Your task to perform on an android device: Turn off the flashlight Image 0: 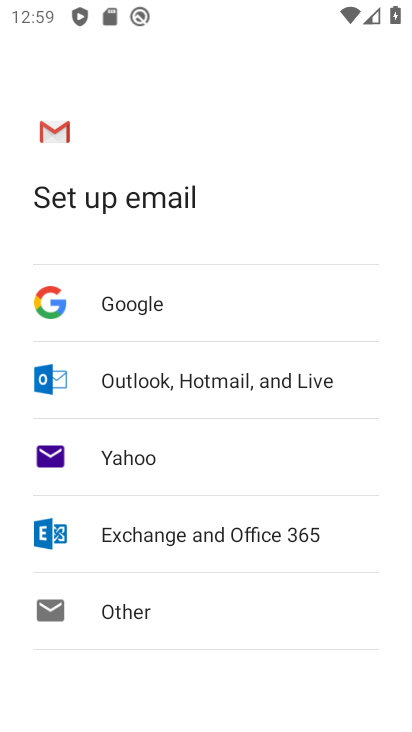
Step 0: press home button
Your task to perform on an android device: Turn off the flashlight Image 1: 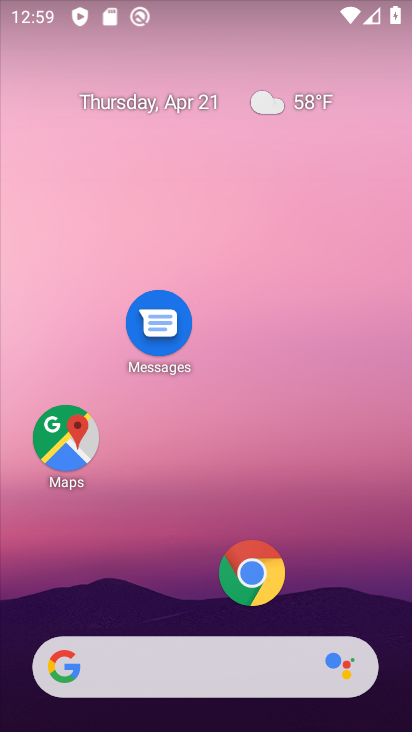
Step 1: drag from (161, 541) to (193, 66)
Your task to perform on an android device: Turn off the flashlight Image 2: 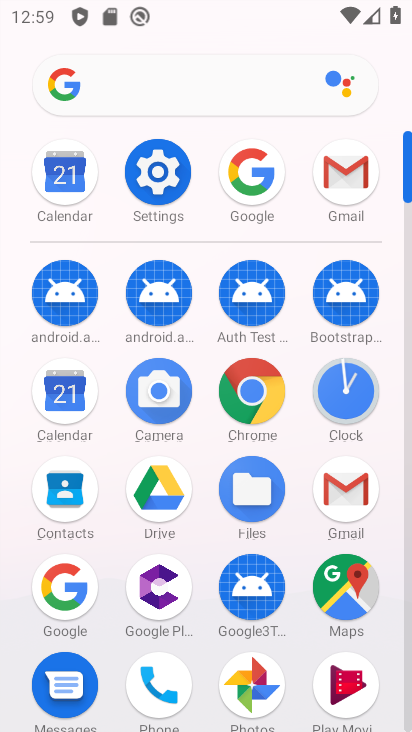
Step 2: click (151, 175)
Your task to perform on an android device: Turn off the flashlight Image 3: 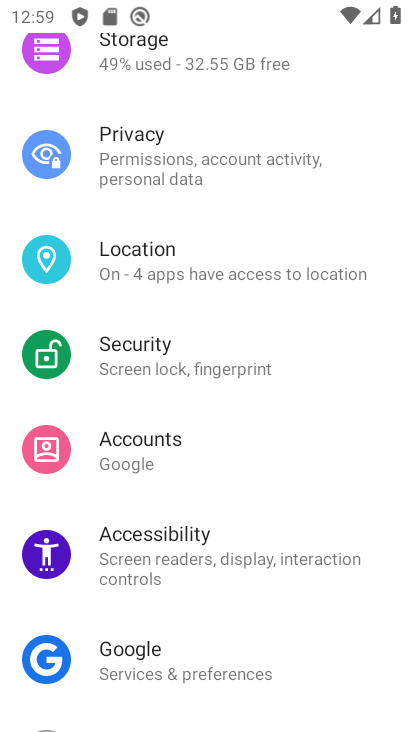
Step 3: drag from (203, 139) to (259, 660)
Your task to perform on an android device: Turn off the flashlight Image 4: 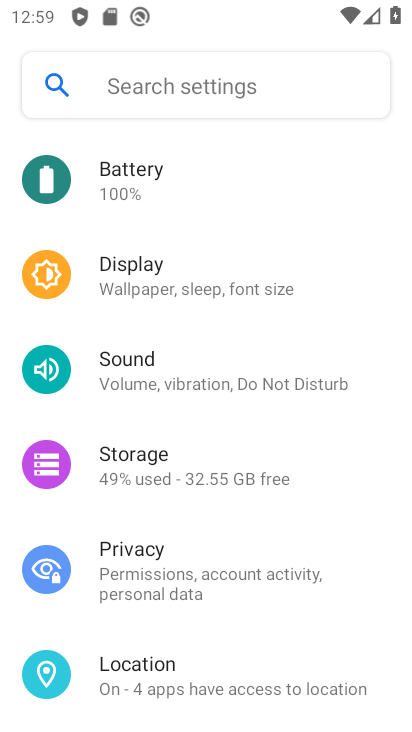
Step 4: click (162, 97)
Your task to perform on an android device: Turn off the flashlight Image 5: 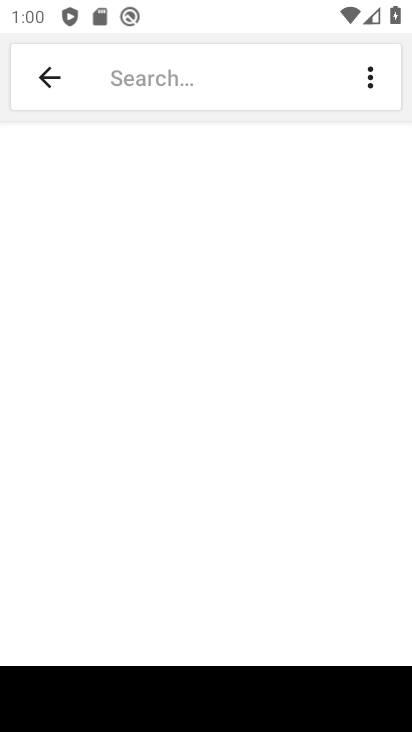
Step 5: type "flash"
Your task to perform on an android device: Turn off the flashlight Image 6: 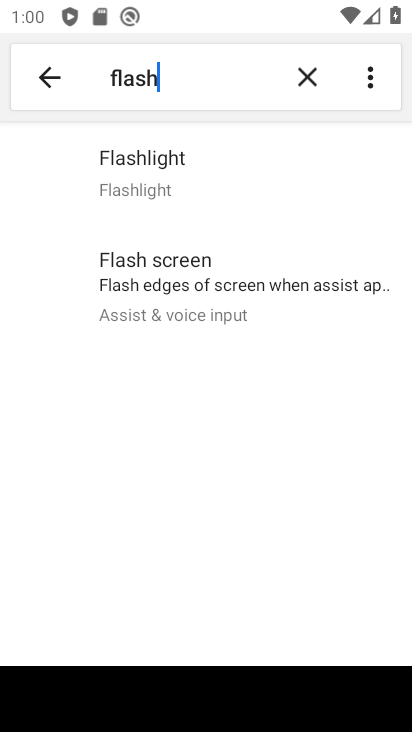
Step 6: task complete